Your task to perform on an android device: Search for dell alienware on ebay.com, select the first entry, add it to the cart, then select checkout. Image 0: 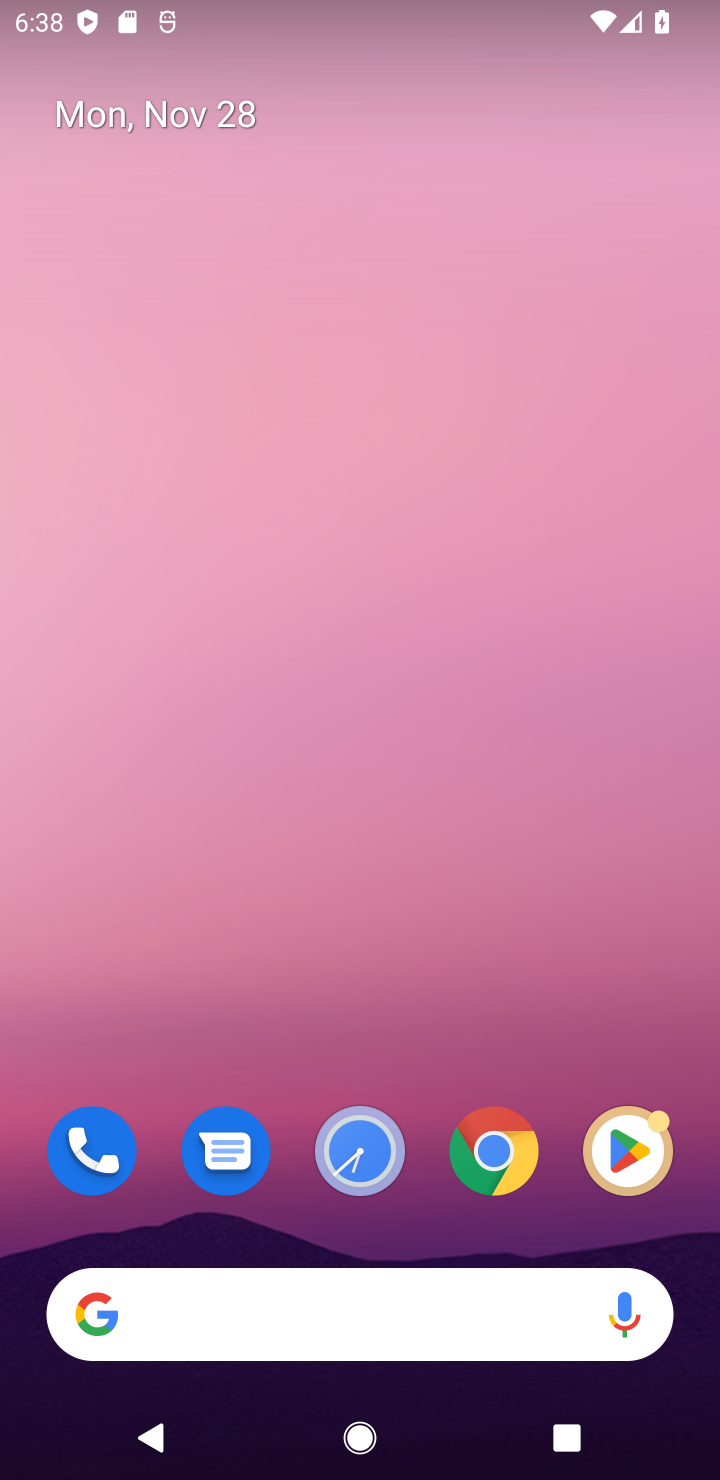
Step 0: click (299, 1303)
Your task to perform on an android device: Search for dell alienware on ebay.com, select the first entry, add it to the cart, then select checkout. Image 1: 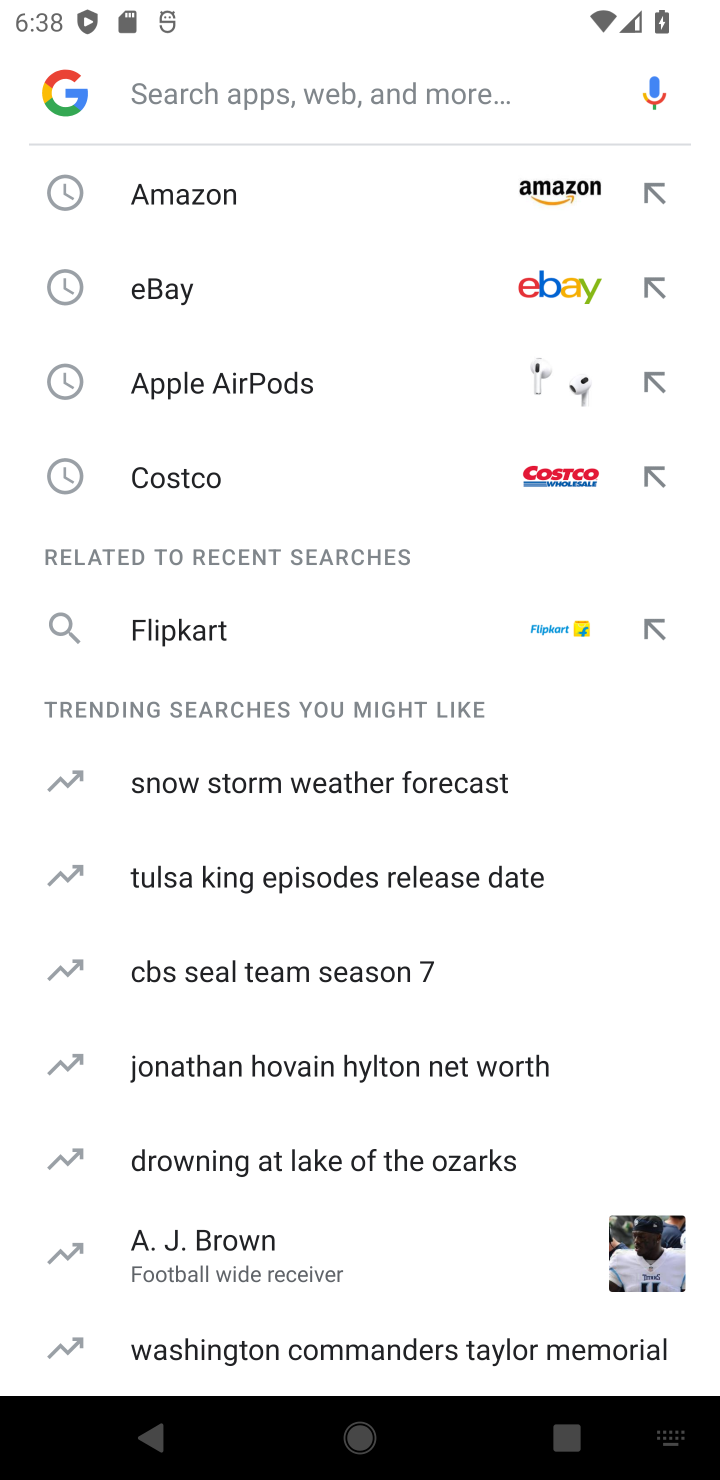
Step 1: click (266, 307)
Your task to perform on an android device: Search for dell alienware on ebay.com, select the first entry, add it to the cart, then select checkout. Image 2: 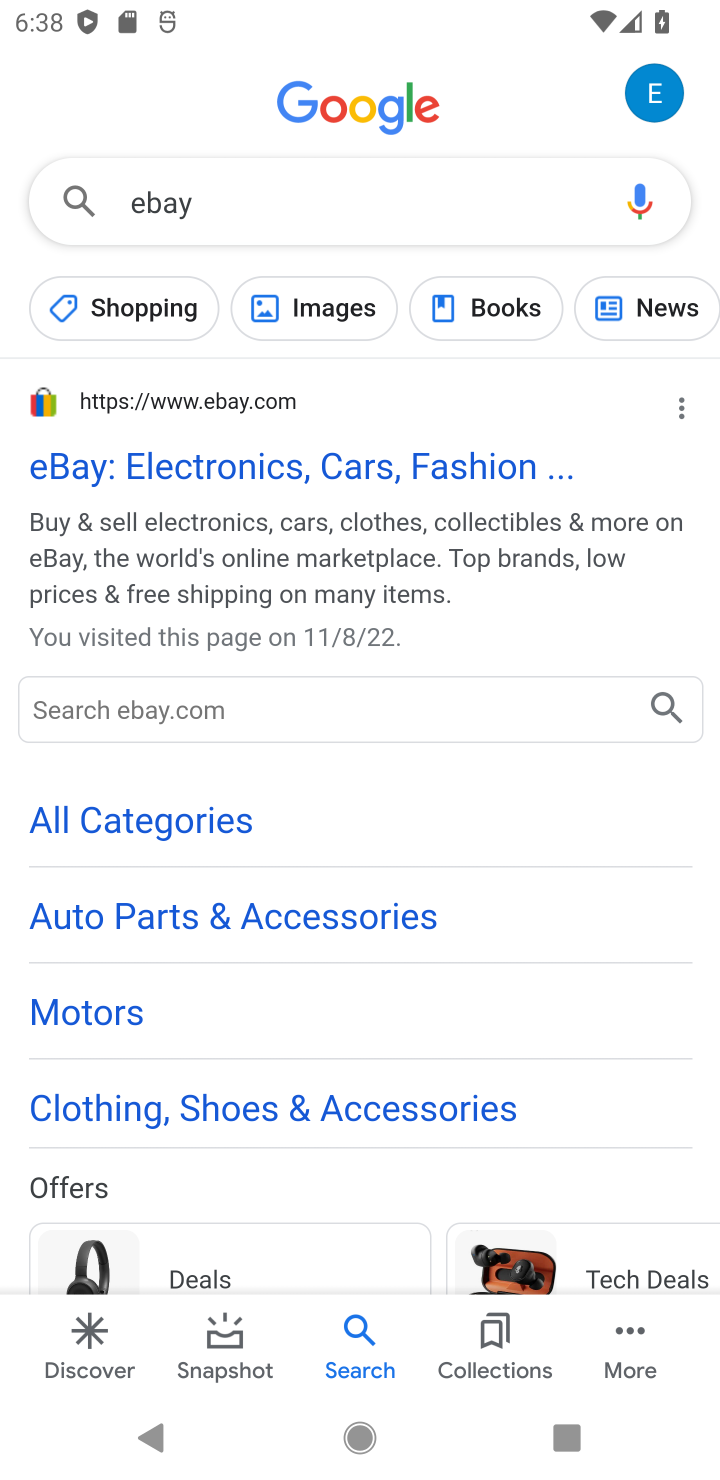
Step 2: click (157, 487)
Your task to perform on an android device: Search for dell alienware on ebay.com, select the first entry, add it to the cart, then select checkout. Image 3: 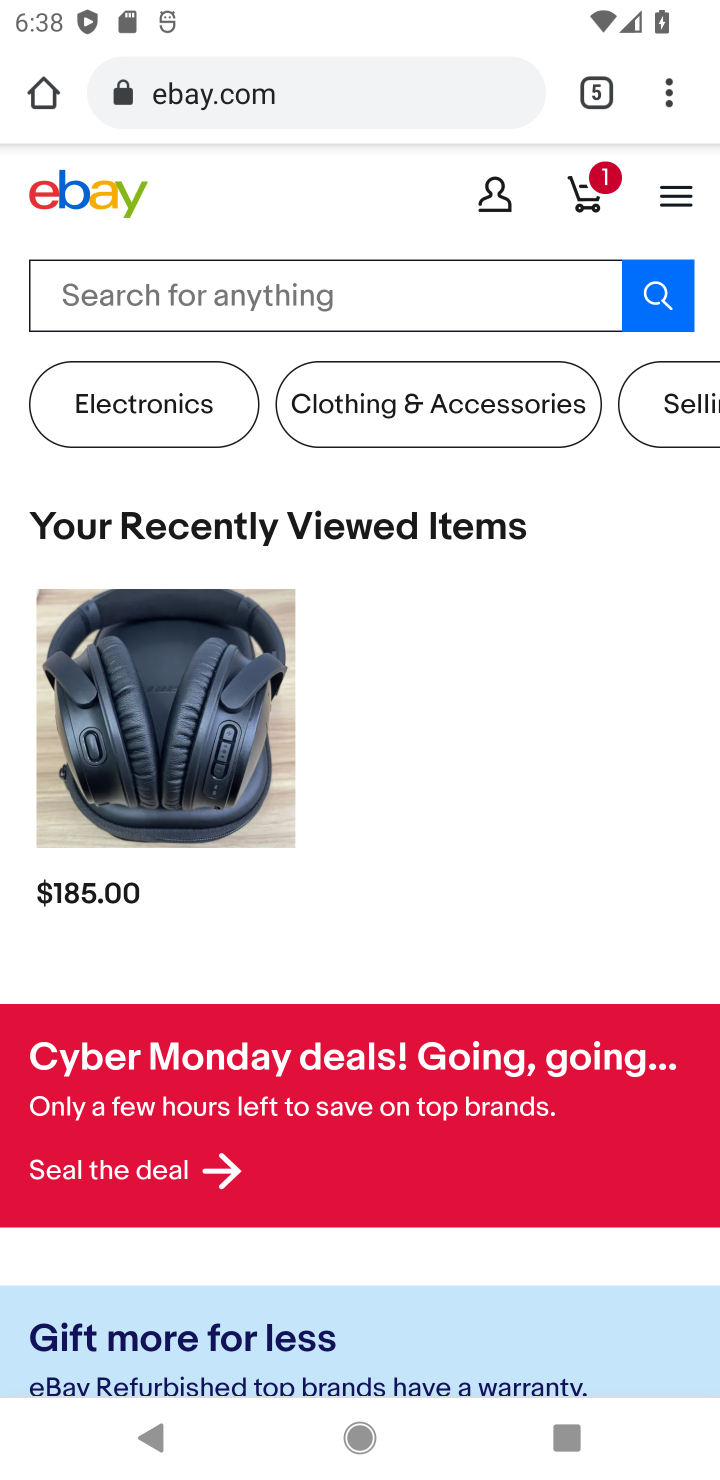
Step 3: click (171, 273)
Your task to perform on an android device: Search for dell alienware on ebay.com, select the first entry, add it to the cart, then select checkout. Image 4: 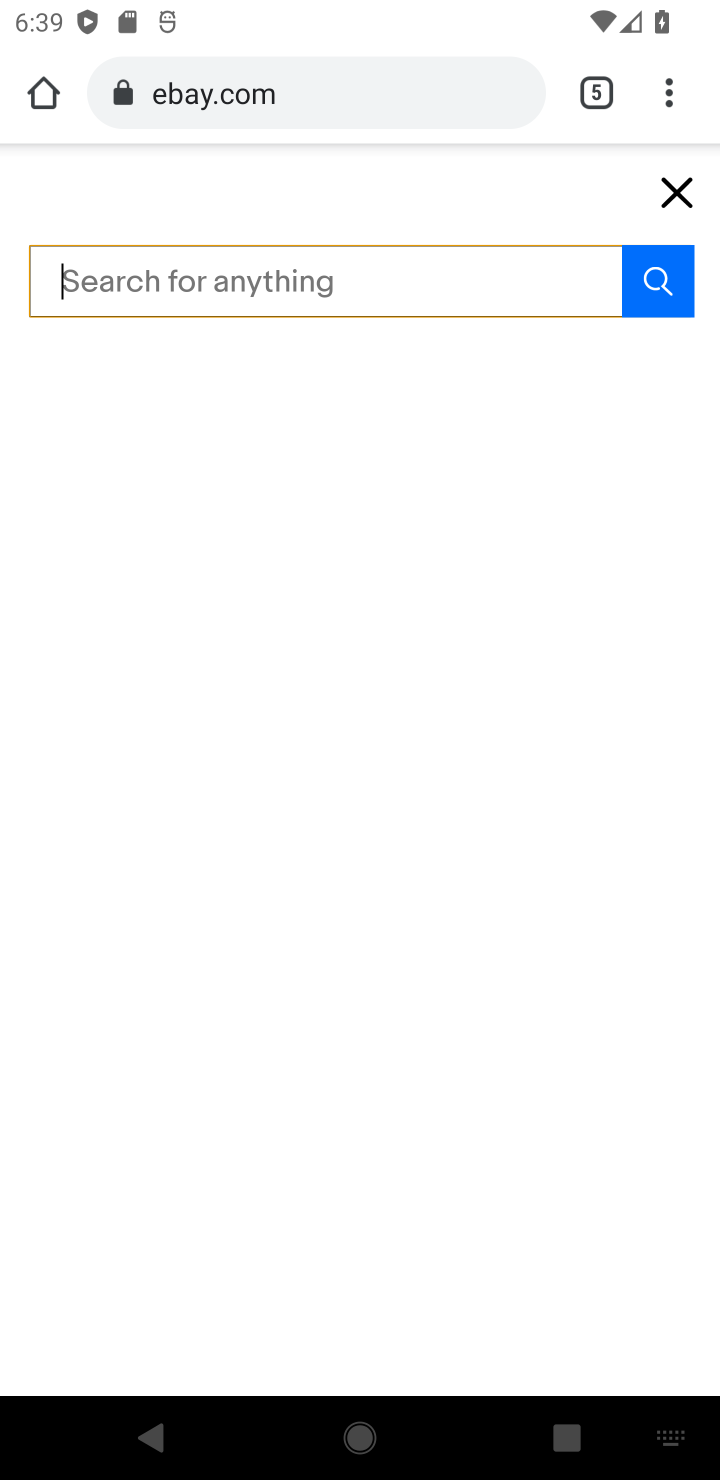
Step 4: type "dell alienware'"
Your task to perform on an android device: Search for dell alienware on ebay.com, select the first entry, add it to the cart, then select checkout. Image 5: 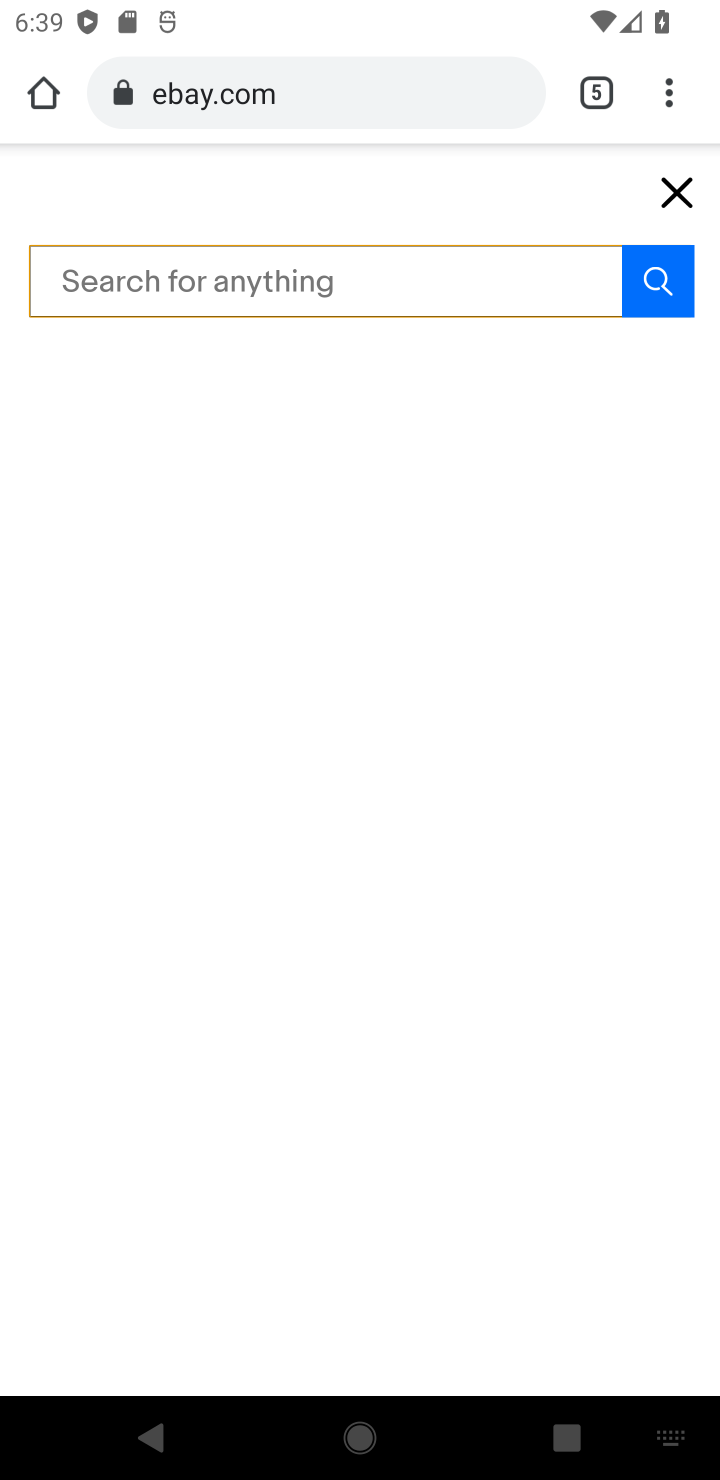
Step 5: click (297, 290)
Your task to perform on an android device: Search for dell alienware on ebay.com, select the first entry, add it to the cart, then select checkout. Image 6: 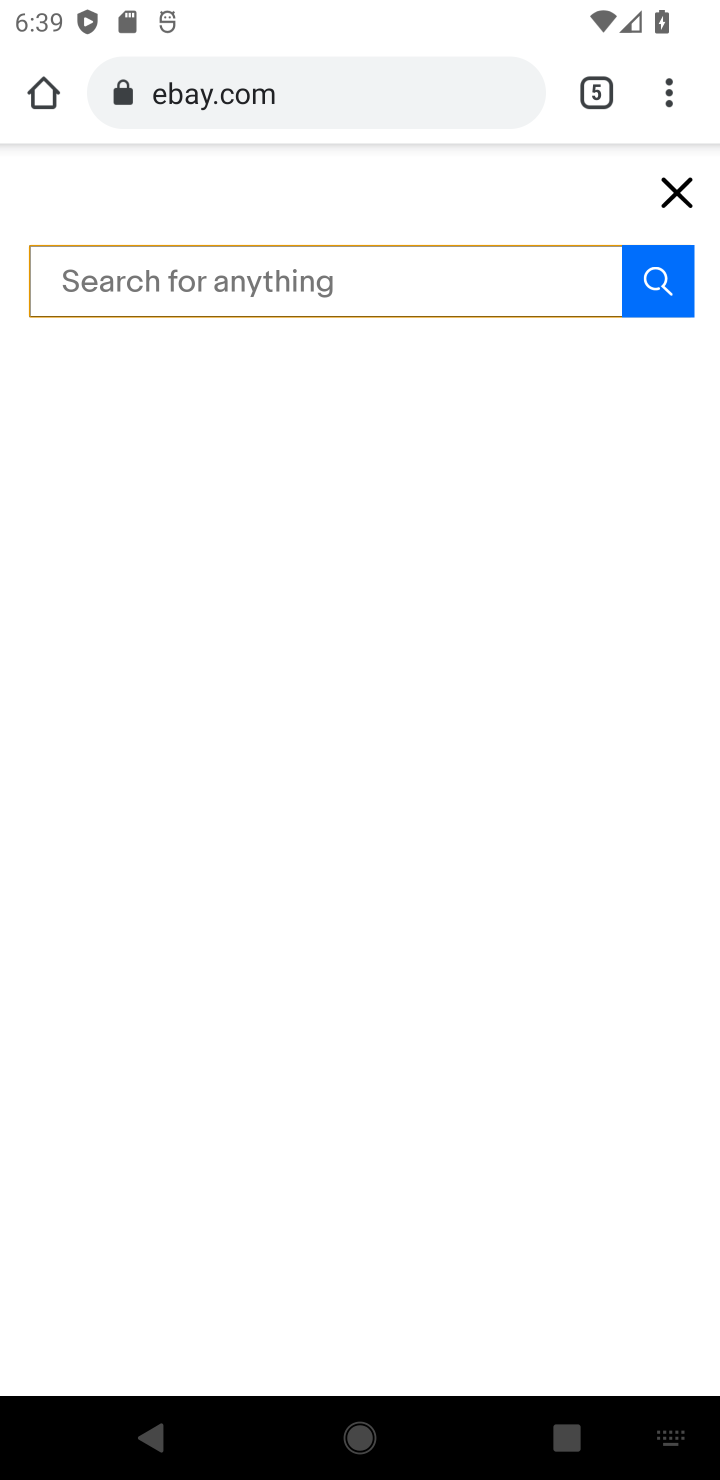
Step 6: type "alenware"
Your task to perform on an android device: Search for dell alienware on ebay.com, select the first entry, add it to the cart, then select checkout. Image 7: 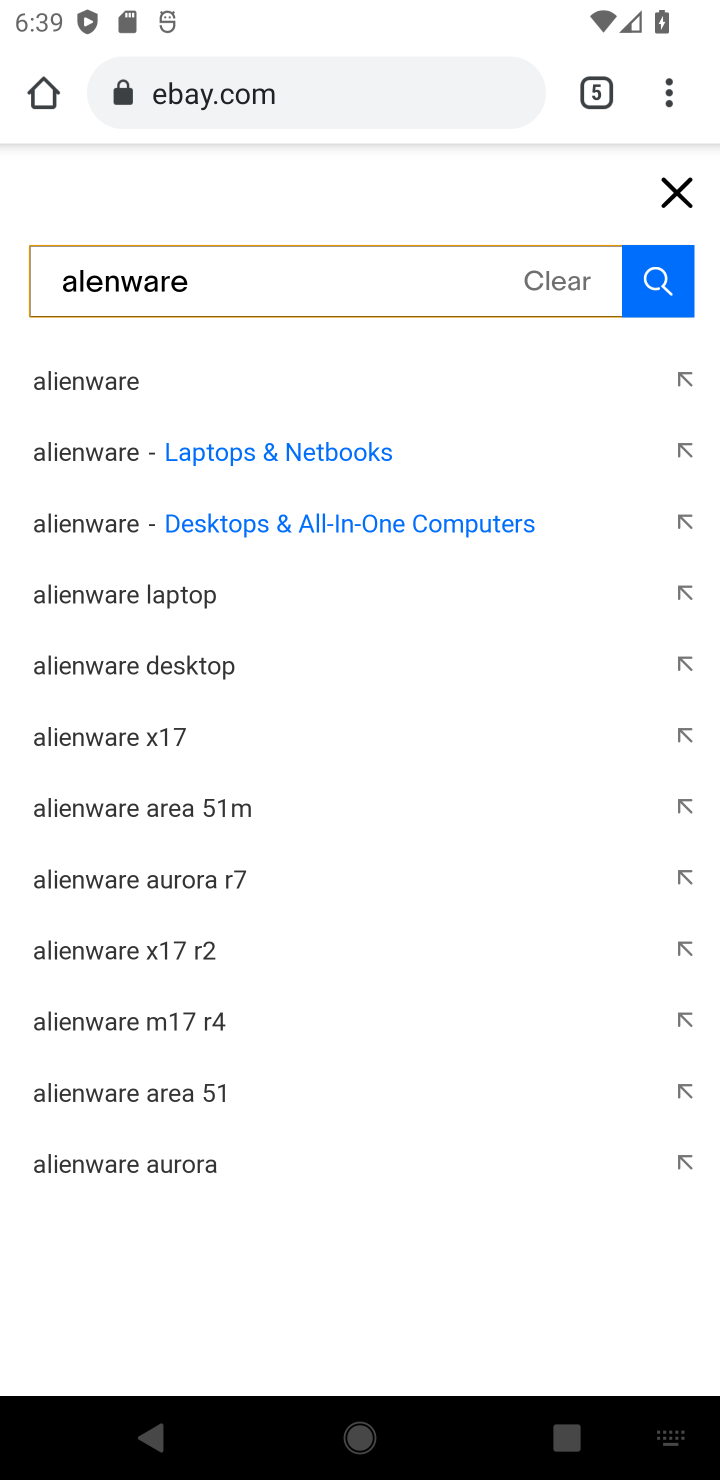
Step 7: click (246, 383)
Your task to perform on an android device: Search for dell alienware on ebay.com, select the first entry, add it to the cart, then select checkout. Image 8: 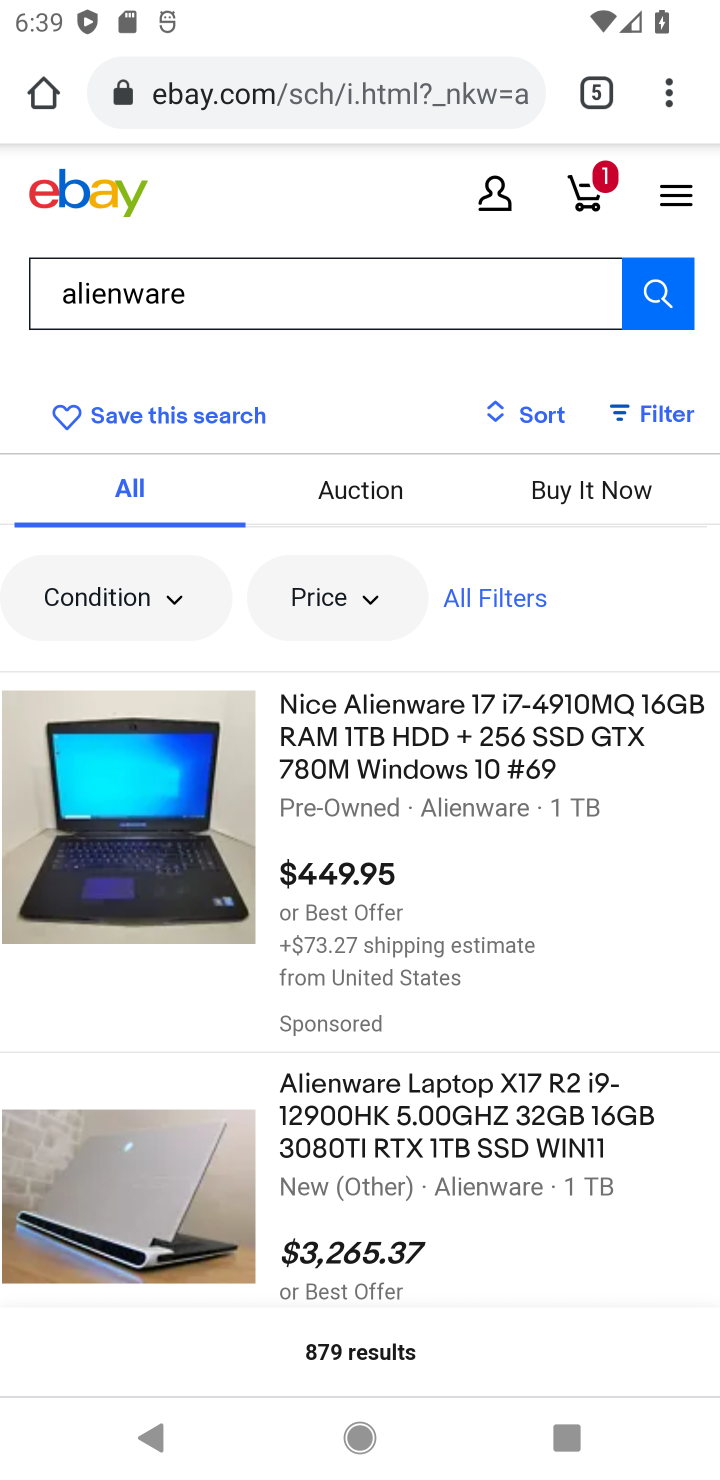
Step 8: click (309, 735)
Your task to perform on an android device: Search for dell alienware on ebay.com, select the first entry, add it to the cart, then select checkout. Image 9: 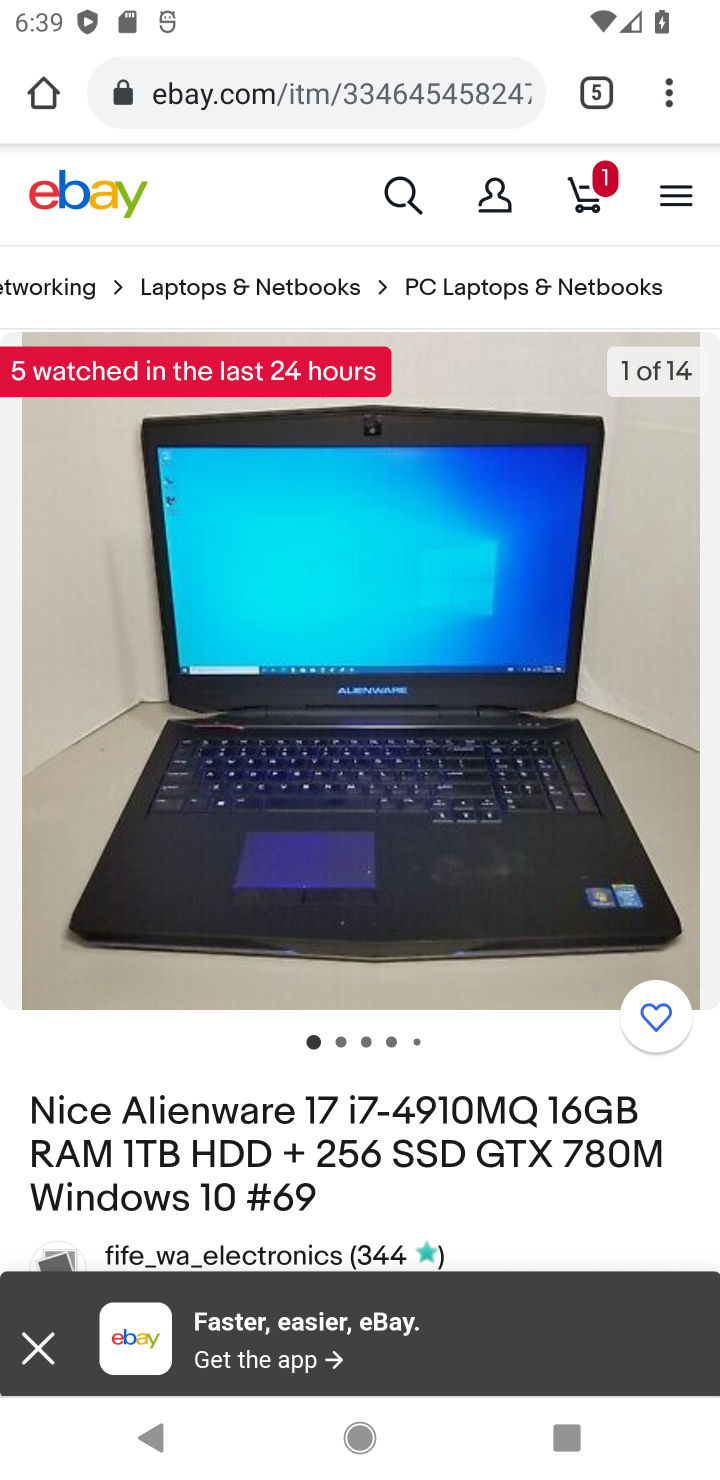
Step 9: drag from (537, 1244) to (497, 740)
Your task to perform on an android device: Search for dell alienware on ebay.com, select the first entry, add it to the cart, then select checkout. Image 10: 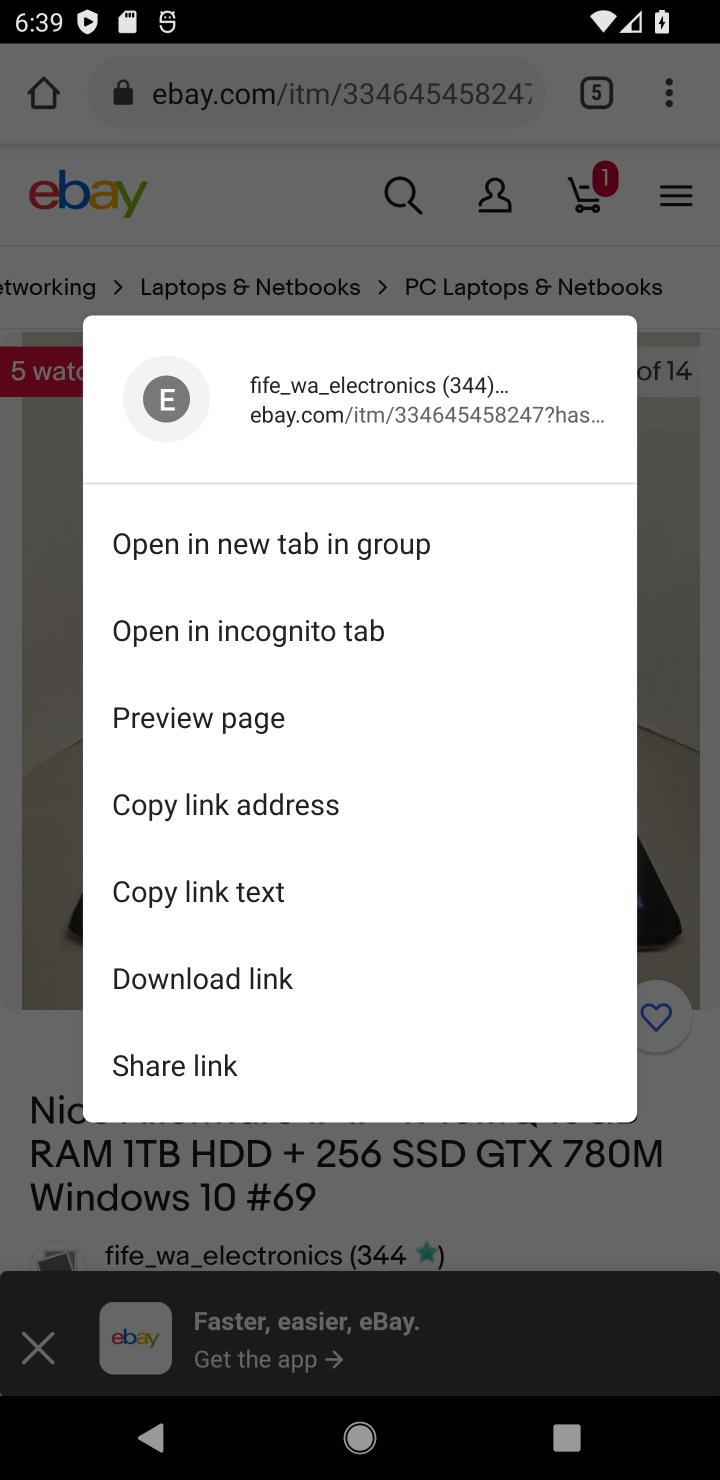
Step 10: click (672, 706)
Your task to perform on an android device: Search for dell alienware on ebay.com, select the first entry, add it to the cart, then select checkout. Image 11: 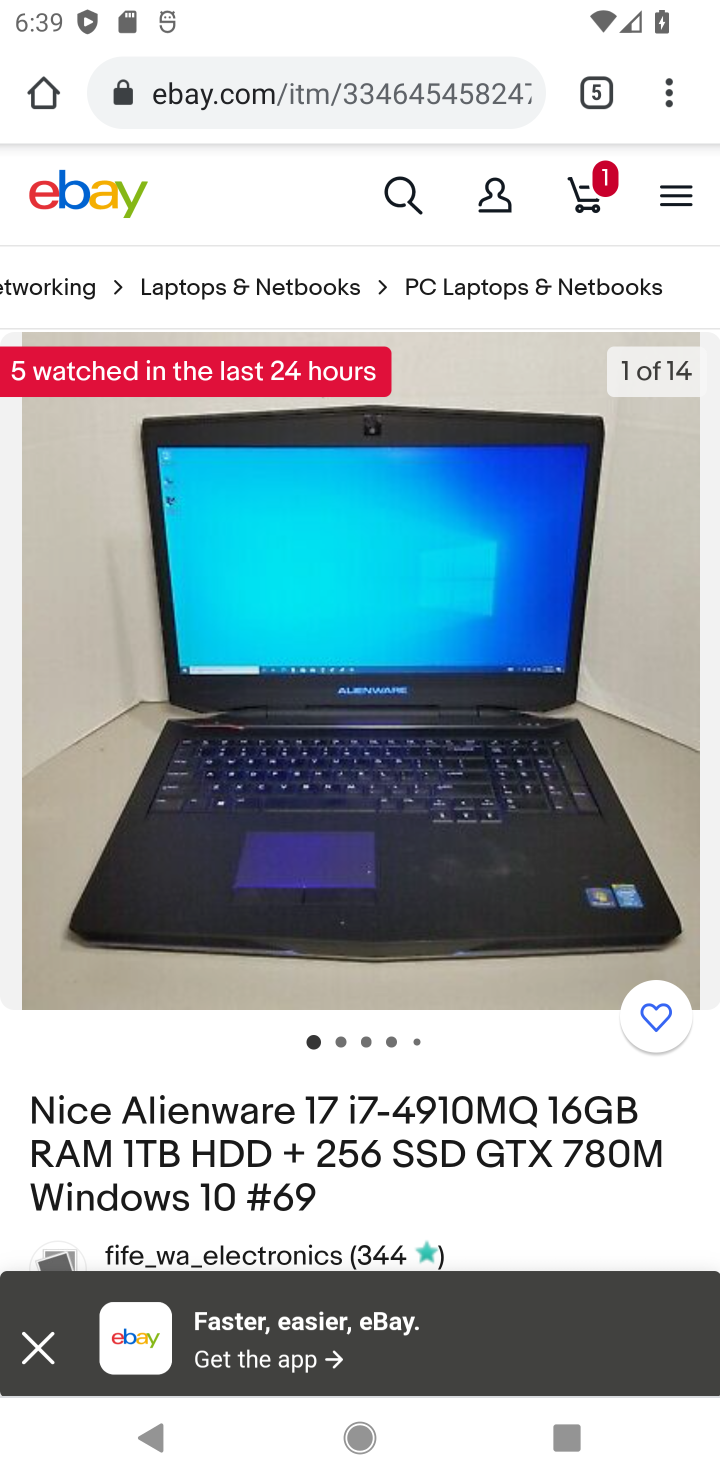
Step 11: drag from (607, 1215) to (534, 662)
Your task to perform on an android device: Search for dell alienware on ebay.com, select the first entry, add it to the cart, then select checkout. Image 12: 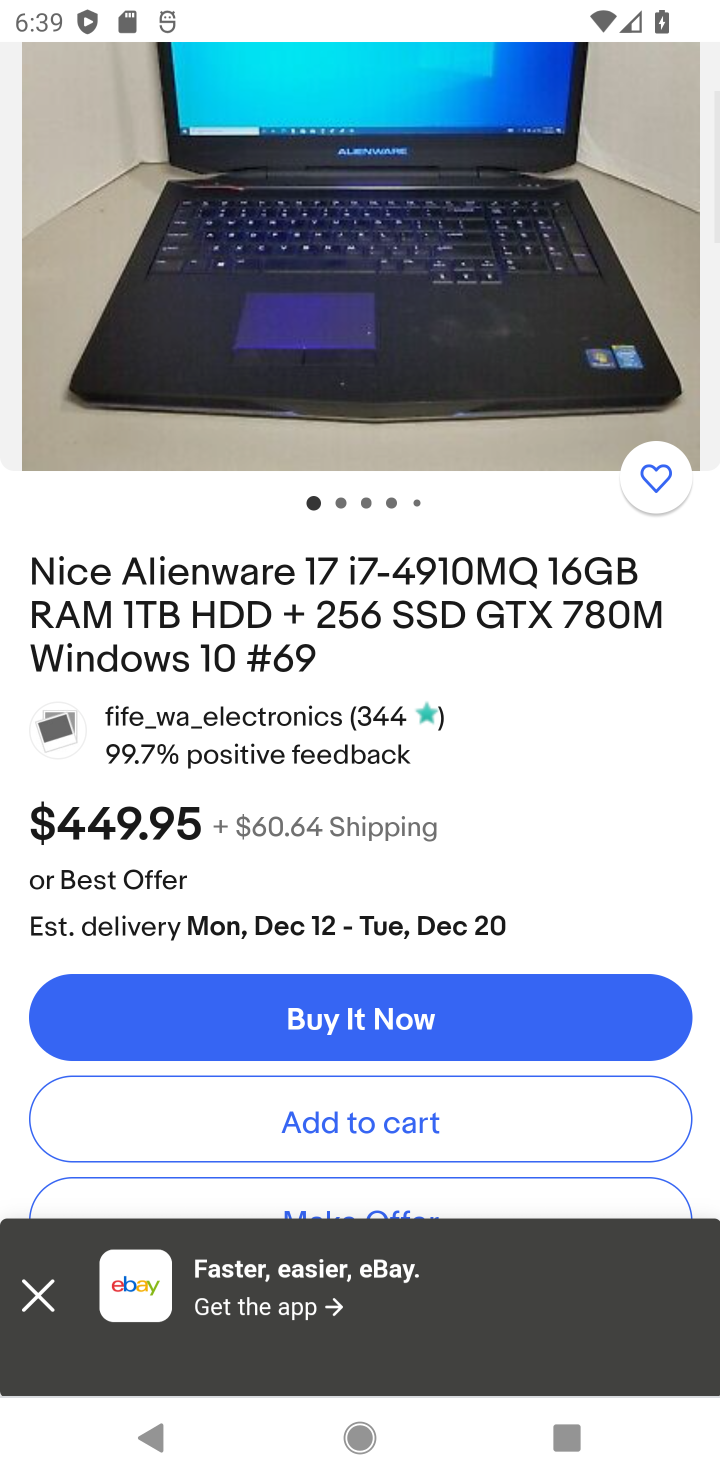
Step 12: click (446, 1178)
Your task to perform on an android device: Search for dell alienware on ebay.com, select the first entry, add it to the cart, then select checkout. Image 13: 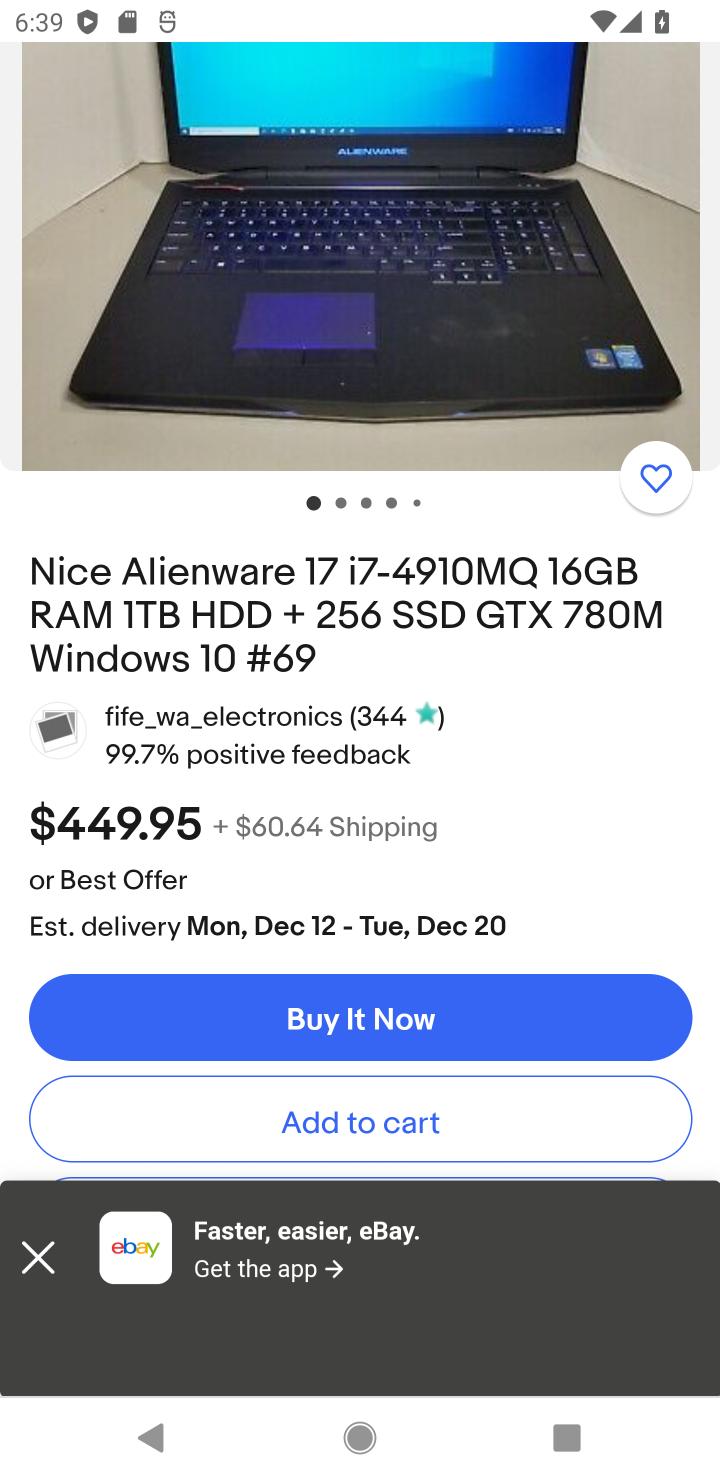
Step 13: click (490, 1123)
Your task to perform on an android device: Search for dell alienware on ebay.com, select the first entry, add it to the cart, then select checkout. Image 14: 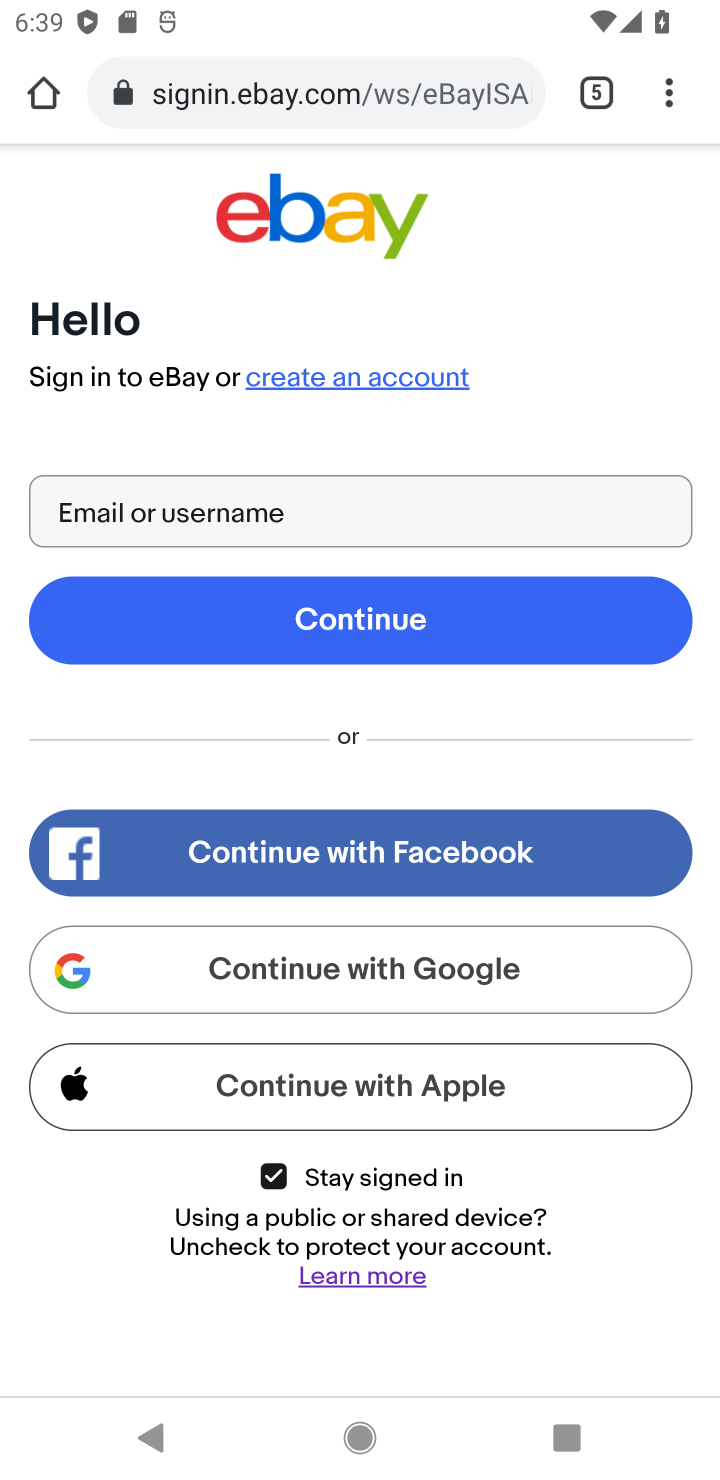
Step 14: task complete